Your task to perform on an android device: Go to settings Image 0: 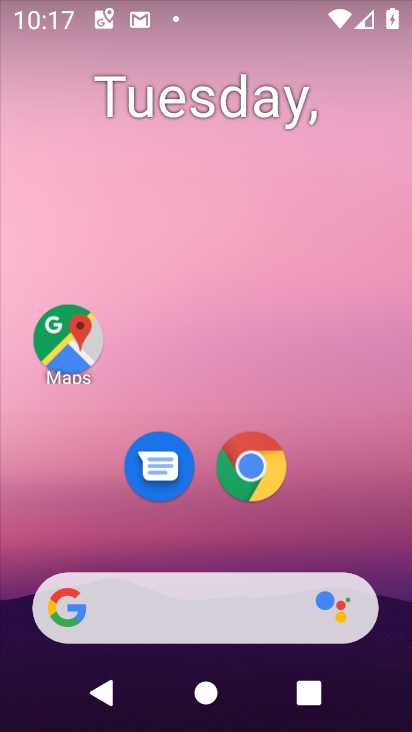
Step 0: press home button
Your task to perform on an android device: Go to settings Image 1: 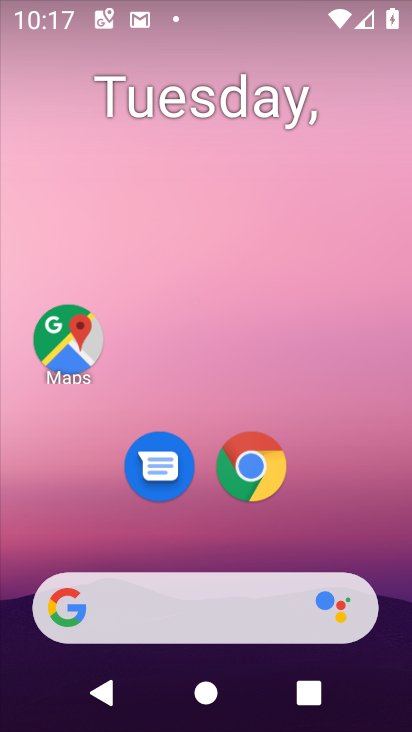
Step 1: drag from (278, 641) to (285, 240)
Your task to perform on an android device: Go to settings Image 2: 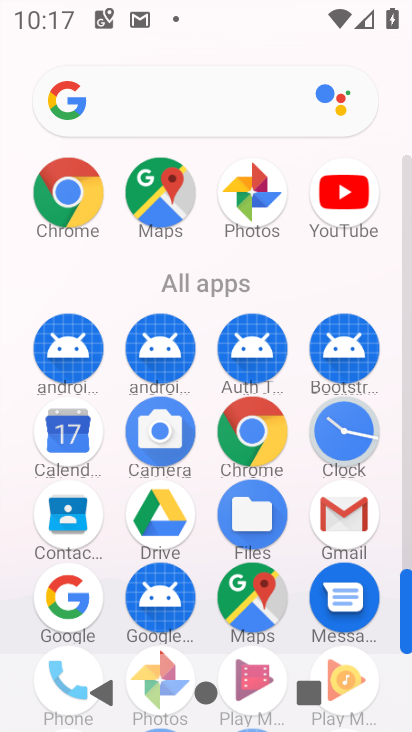
Step 2: drag from (115, 553) to (74, 406)
Your task to perform on an android device: Go to settings Image 3: 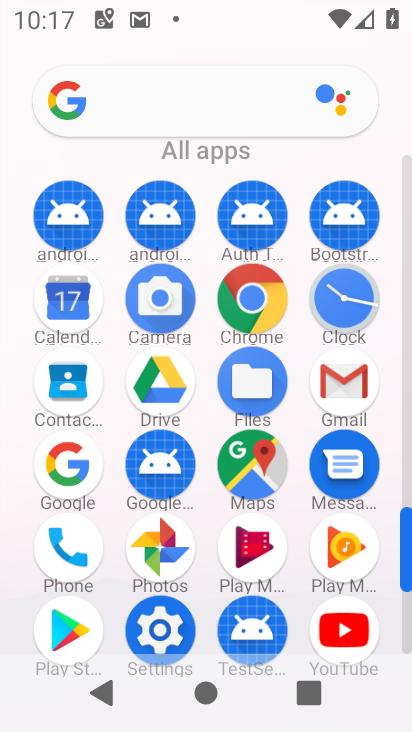
Step 3: click (162, 617)
Your task to perform on an android device: Go to settings Image 4: 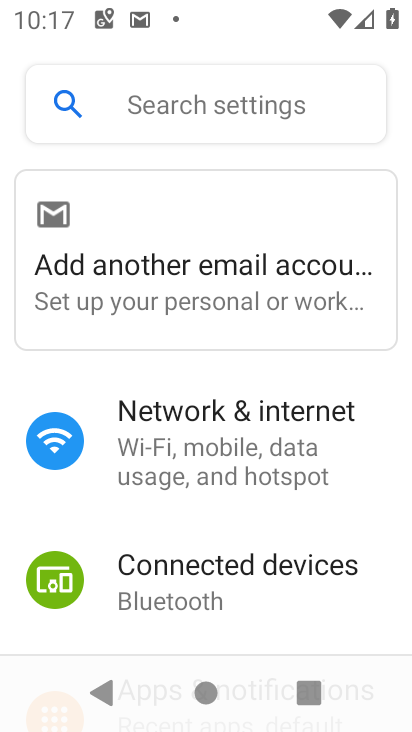
Step 4: task complete